Your task to perform on an android device: turn off data saver in the chrome app Image 0: 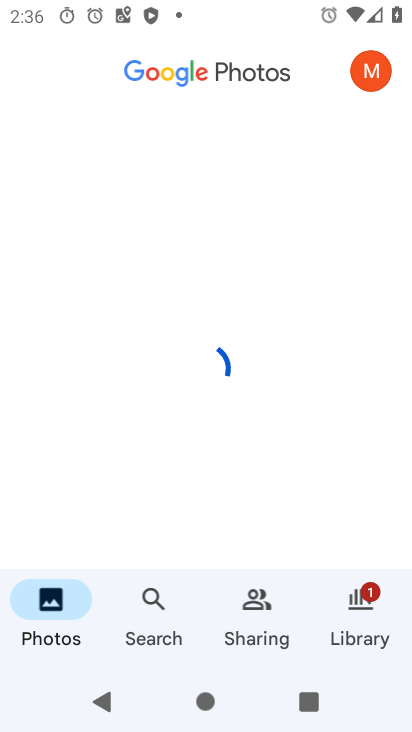
Step 0: press home button
Your task to perform on an android device: turn off data saver in the chrome app Image 1: 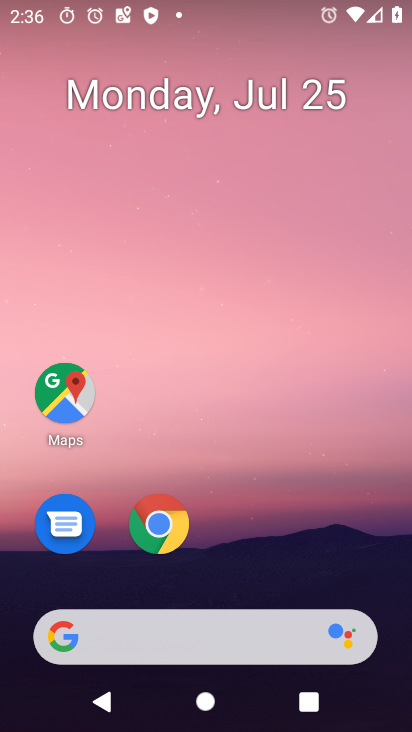
Step 1: drag from (262, 567) to (273, 119)
Your task to perform on an android device: turn off data saver in the chrome app Image 2: 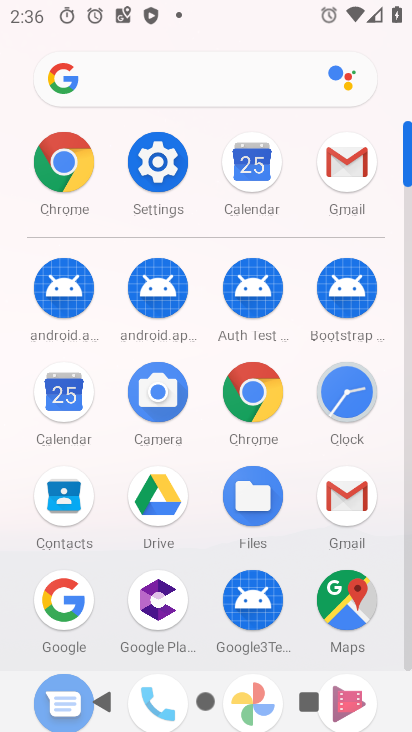
Step 2: click (67, 168)
Your task to perform on an android device: turn off data saver in the chrome app Image 3: 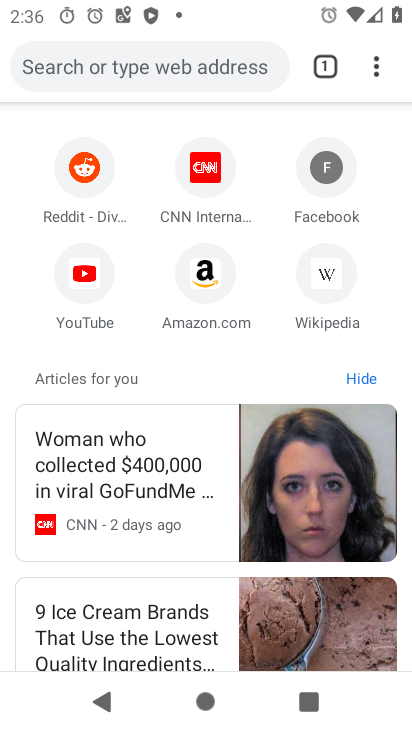
Step 3: drag from (383, 70) to (132, 563)
Your task to perform on an android device: turn off data saver in the chrome app Image 4: 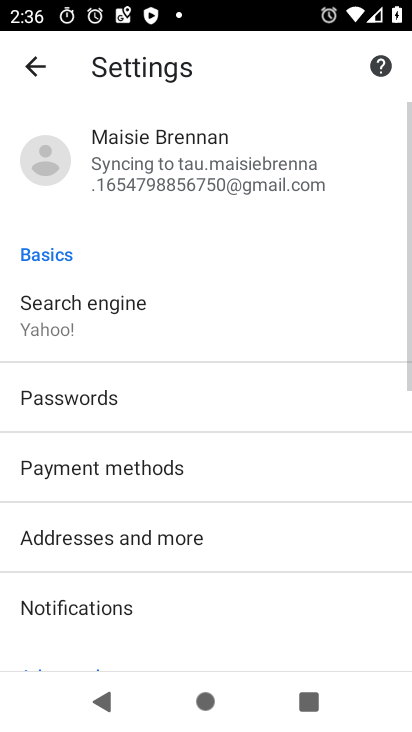
Step 4: drag from (276, 602) to (322, 94)
Your task to perform on an android device: turn off data saver in the chrome app Image 5: 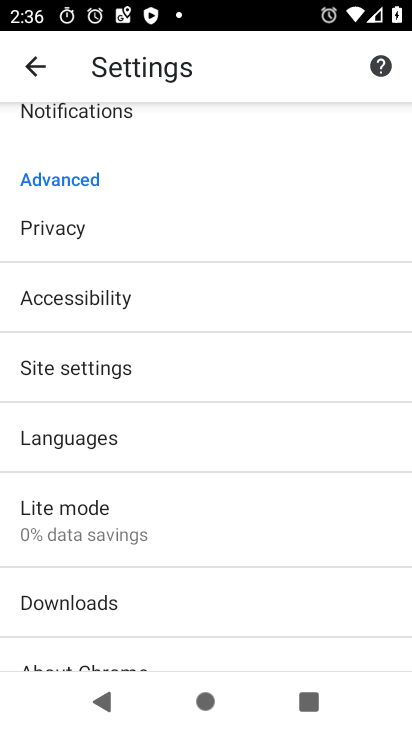
Step 5: click (68, 526)
Your task to perform on an android device: turn off data saver in the chrome app Image 6: 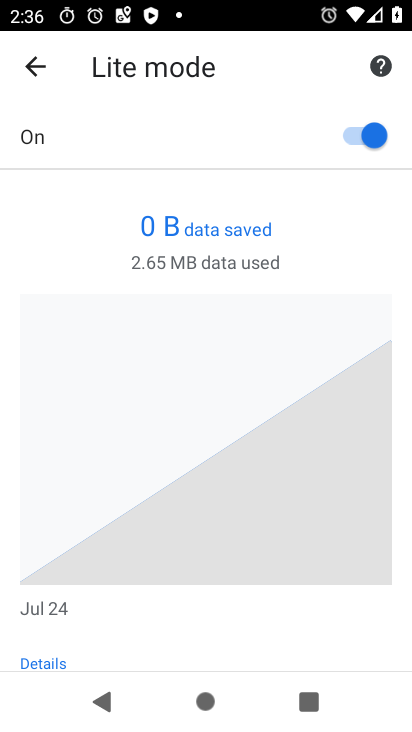
Step 6: click (377, 137)
Your task to perform on an android device: turn off data saver in the chrome app Image 7: 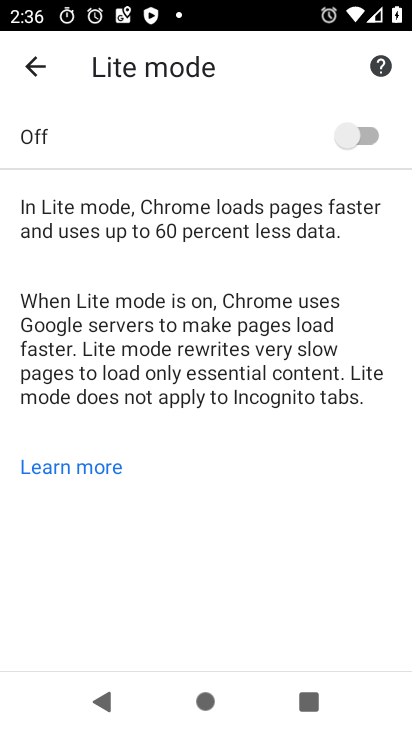
Step 7: task complete